Your task to perform on an android device: choose inbox layout in the gmail app Image 0: 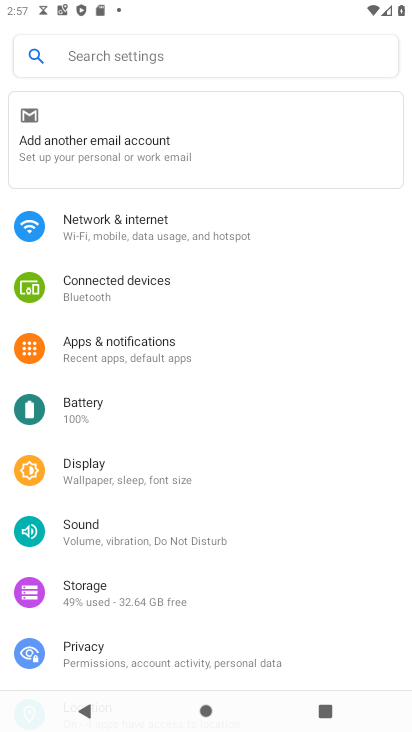
Step 0: press home button
Your task to perform on an android device: choose inbox layout in the gmail app Image 1: 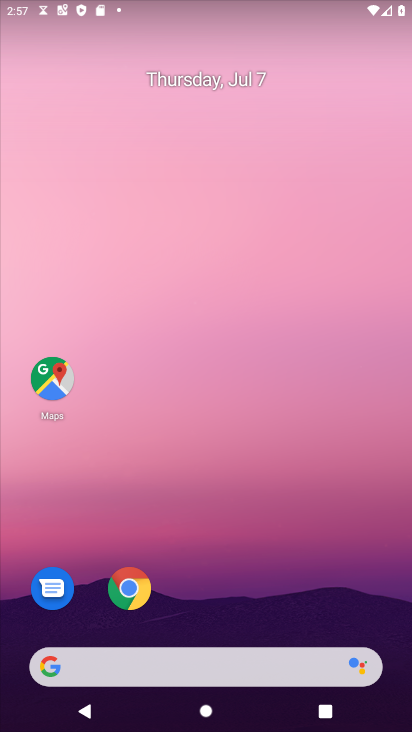
Step 1: drag from (280, 595) to (340, 135)
Your task to perform on an android device: choose inbox layout in the gmail app Image 2: 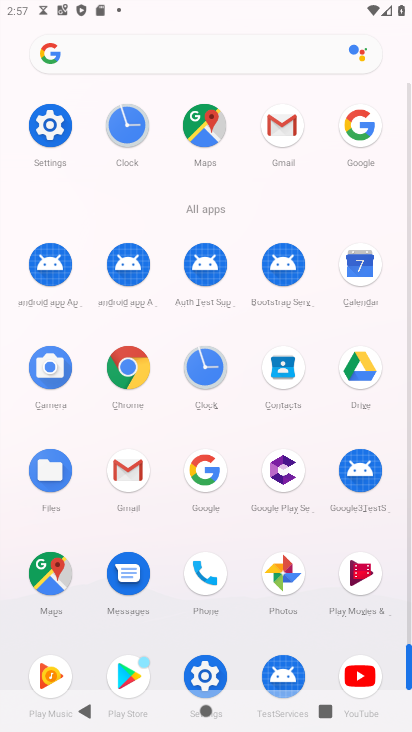
Step 2: click (280, 124)
Your task to perform on an android device: choose inbox layout in the gmail app Image 3: 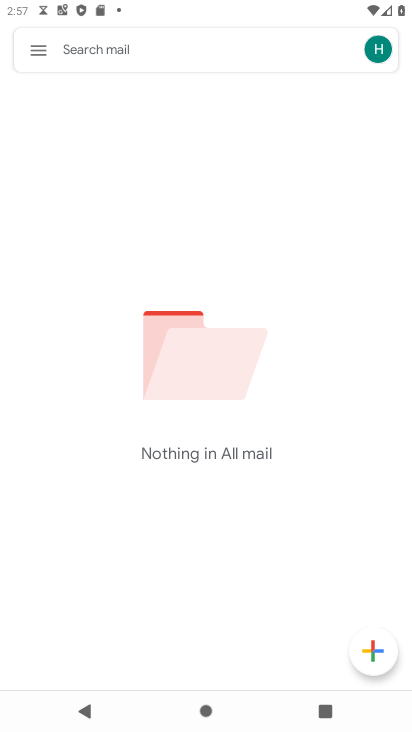
Step 3: click (37, 51)
Your task to perform on an android device: choose inbox layout in the gmail app Image 4: 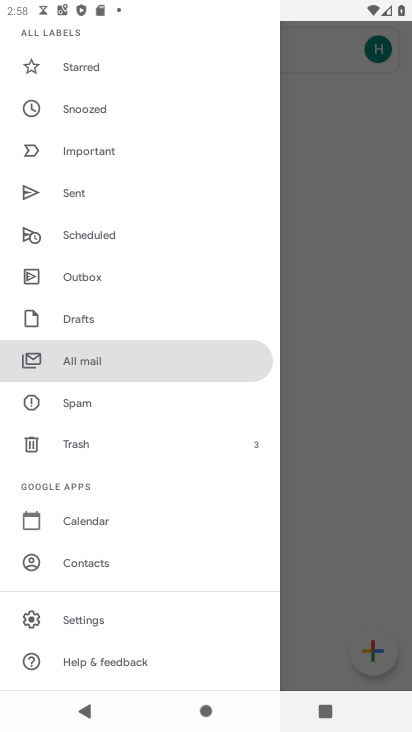
Step 4: click (86, 620)
Your task to perform on an android device: choose inbox layout in the gmail app Image 5: 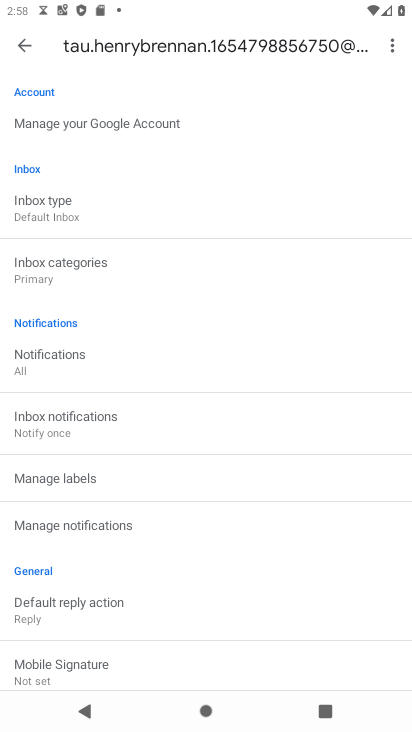
Step 5: click (71, 226)
Your task to perform on an android device: choose inbox layout in the gmail app Image 6: 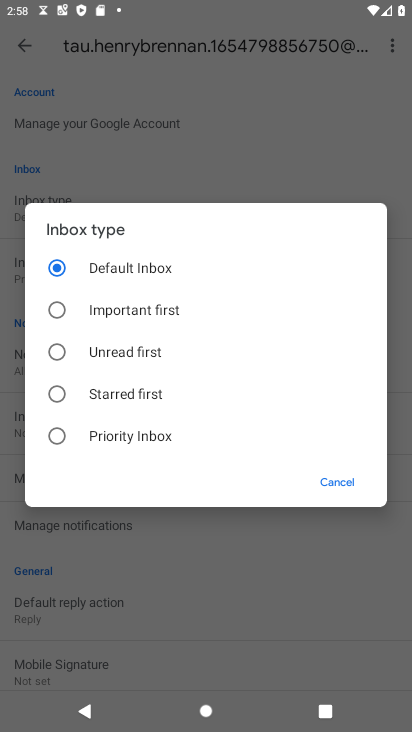
Step 6: click (49, 305)
Your task to perform on an android device: choose inbox layout in the gmail app Image 7: 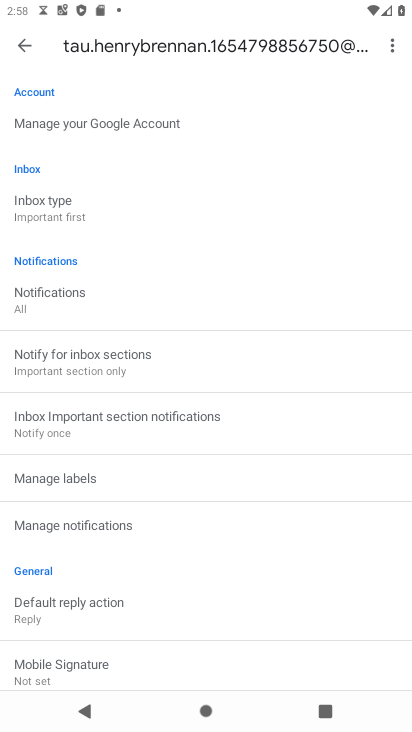
Step 7: task complete